Your task to perform on an android device: turn on bluetooth scan Image 0: 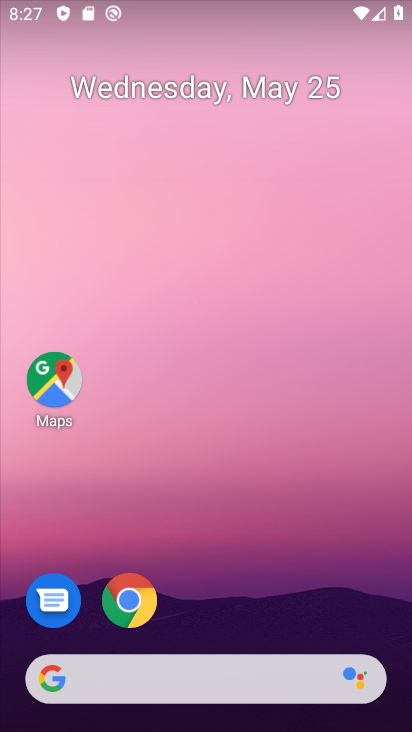
Step 0: drag from (218, 582) to (314, 0)
Your task to perform on an android device: turn on bluetooth scan Image 1: 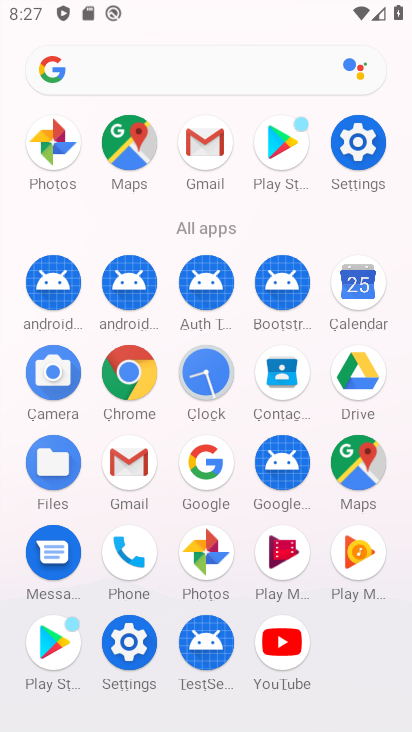
Step 1: click (354, 148)
Your task to perform on an android device: turn on bluetooth scan Image 2: 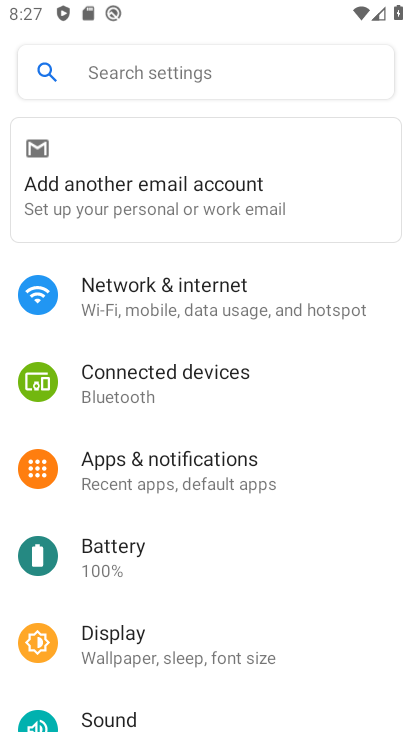
Step 2: drag from (165, 702) to (278, 205)
Your task to perform on an android device: turn on bluetooth scan Image 3: 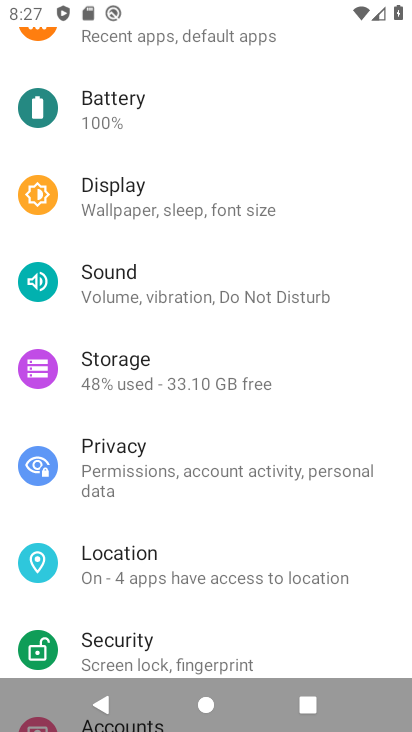
Step 3: click (197, 549)
Your task to perform on an android device: turn on bluetooth scan Image 4: 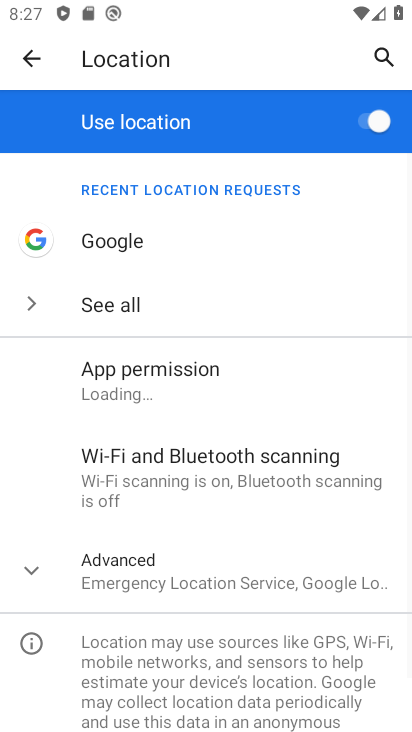
Step 4: click (193, 573)
Your task to perform on an android device: turn on bluetooth scan Image 5: 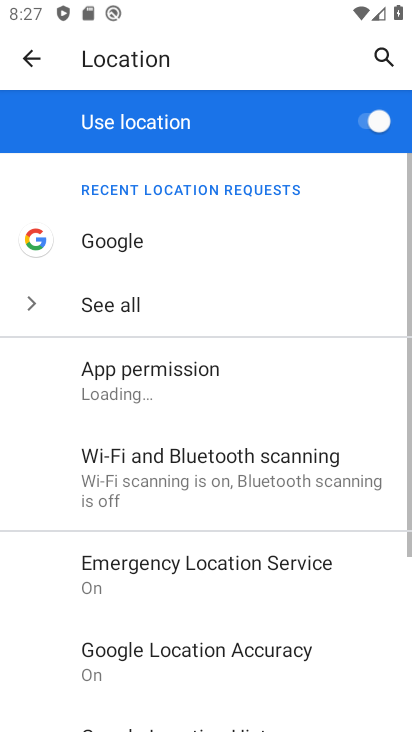
Step 5: click (189, 472)
Your task to perform on an android device: turn on bluetooth scan Image 6: 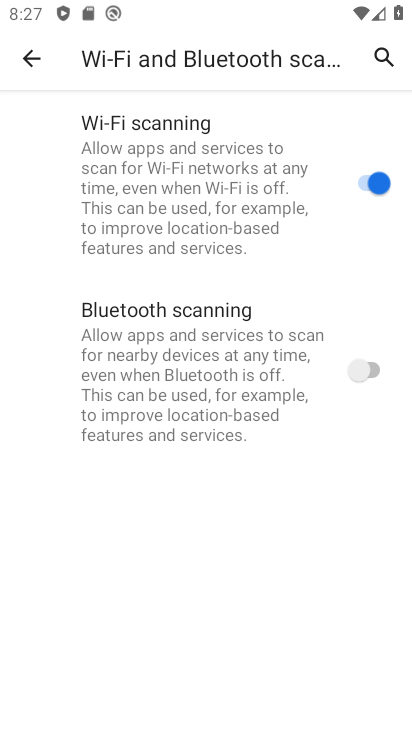
Step 6: click (348, 370)
Your task to perform on an android device: turn on bluetooth scan Image 7: 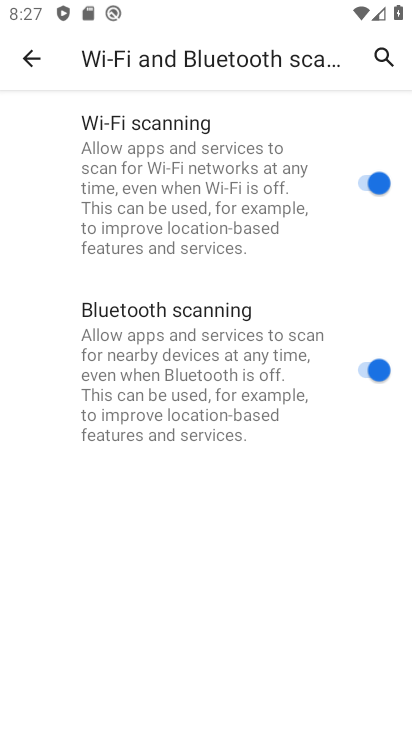
Step 7: task complete